Your task to perform on an android device: Open accessibility settings Image 0: 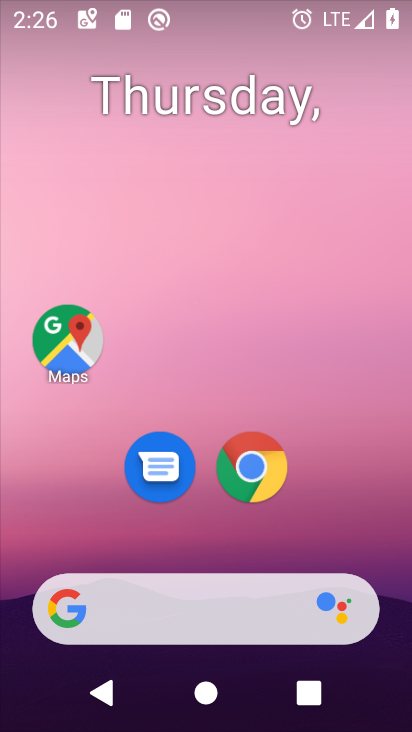
Step 0: drag from (196, 578) to (335, 60)
Your task to perform on an android device: Open accessibility settings Image 1: 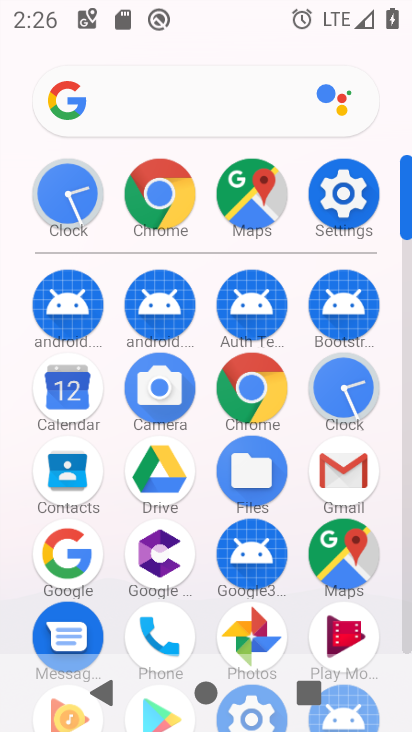
Step 1: click (344, 186)
Your task to perform on an android device: Open accessibility settings Image 2: 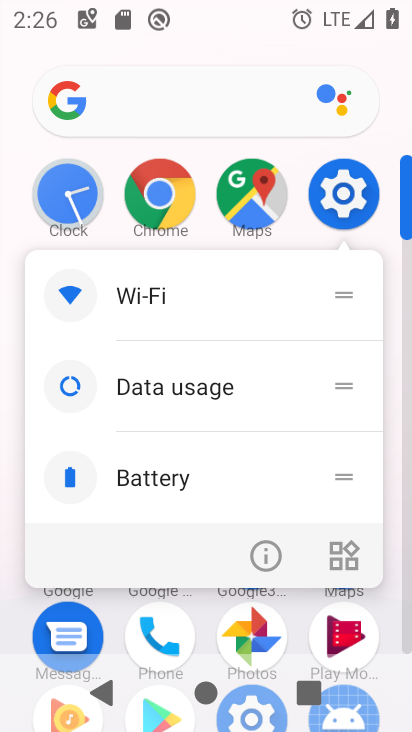
Step 2: click (356, 181)
Your task to perform on an android device: Open accessibility settings Image 3: 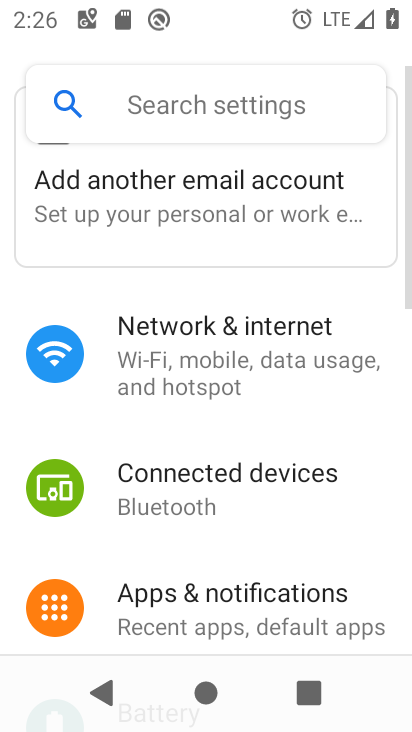
Step 3: drag from (258, 590) to (223, 63)
Your task to perform on an android device: Open accessibility settings Image 4: 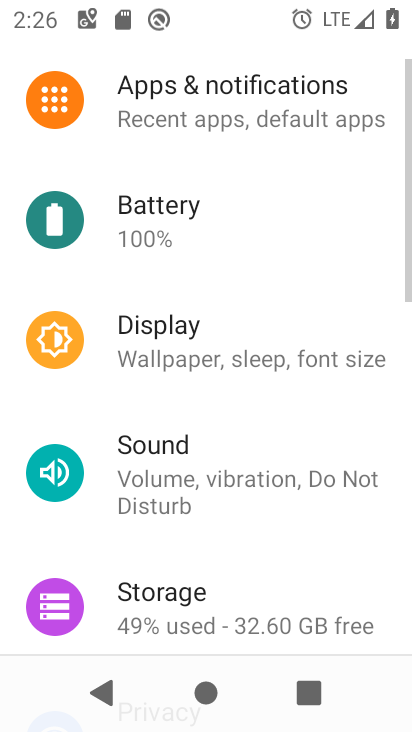
Step 4: drag from (262, 591) to (247, 139)
Your task to perform on an android device: Open accessibility settings Image 5: 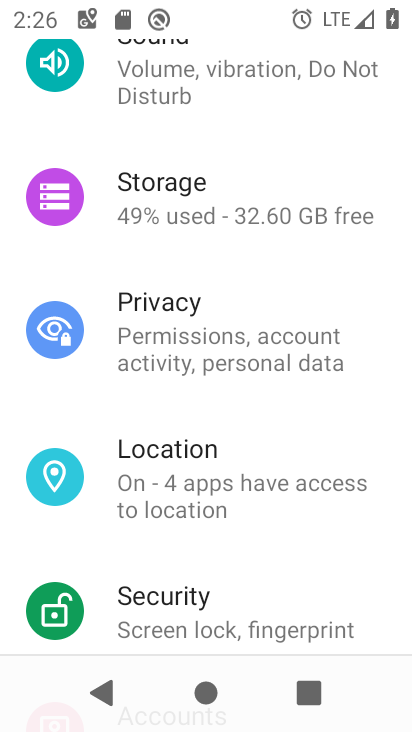
Step 5: drag from (206, 598) to (169, 204)
Your task to perform on an android device: Open accessibility settings Image 6: 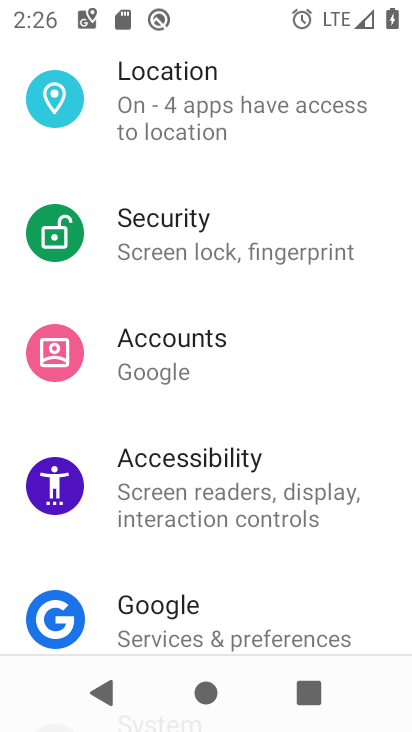
Step 6: click (210, 517)
Your task to perform on an android device: Open accessibility settings Image 7: 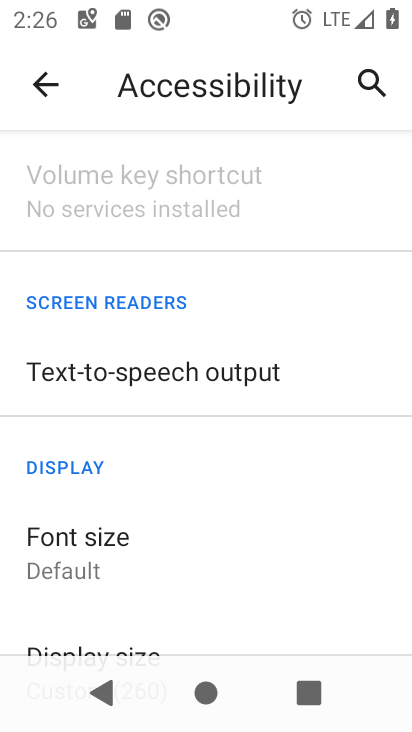
Step 7: task complete